Your task to perform on an android device: Open Chrome and go to the settings page Image 0: 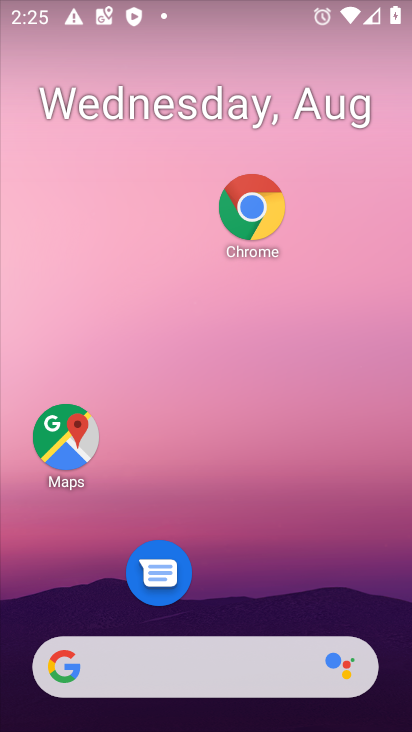
Step 0: drag from (244, 644) to (288, 118)
Your task to perform on an android device: Open Chrome and go to the settings page Image 1: 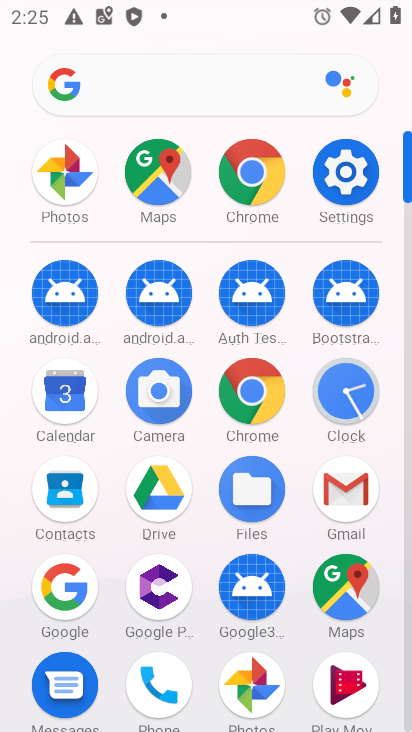
Step 1: click (251, 154)
Your task to perform on an android device: Open Chrome and go to the settings page Image 2: 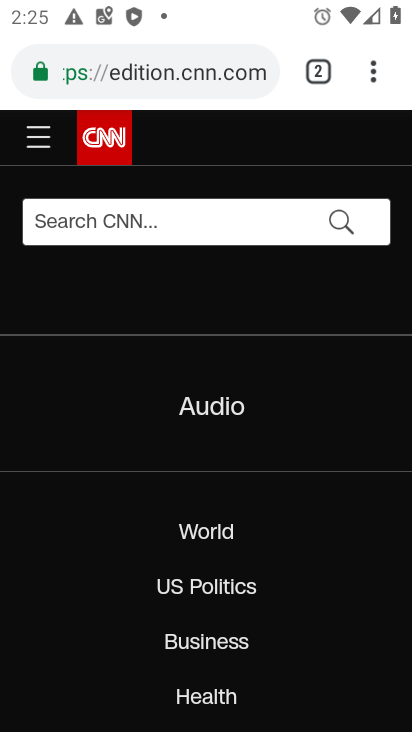
Step 2: click (380, 74)
Your task to perform on an android device: Open Chrome and go to the settings page Image 3: 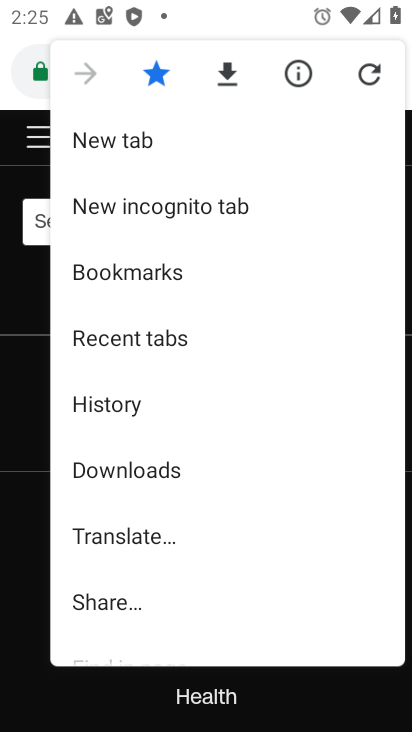
Step 3: drag from (265, 453) to (267, 163)
Your task to perform on an android device: Open Chrome and go to the settings page Image 4: 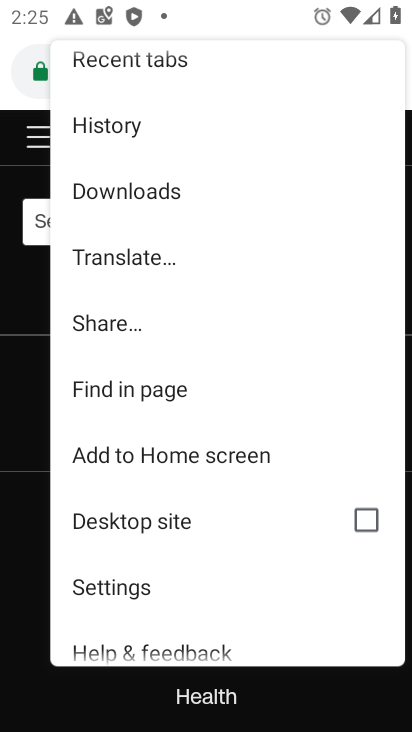
Step 4: click (144, 579)
Your task to perform on an android device: Open Chrome and go to the settings page Image 5: 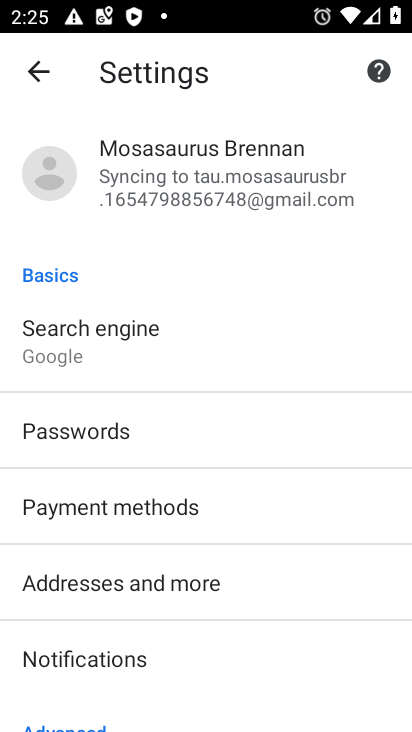
Step 5: task complete